Your task to perform on an android device: turn on the 12-hour format for clock Image 0: 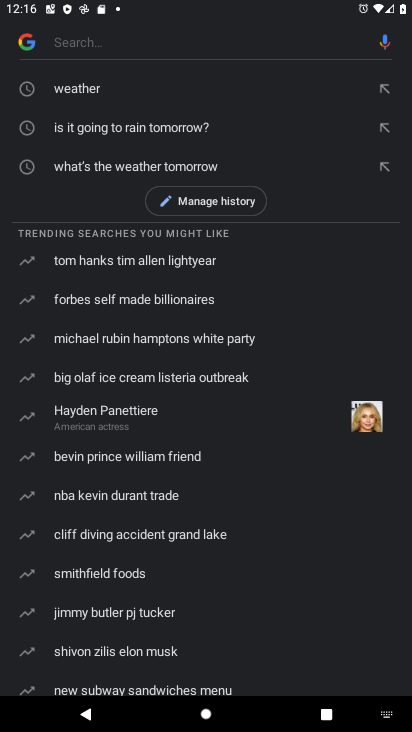
Step 0: press home button
Your task to perform on an android device: turn on the 12-hour format for clock Image 1: 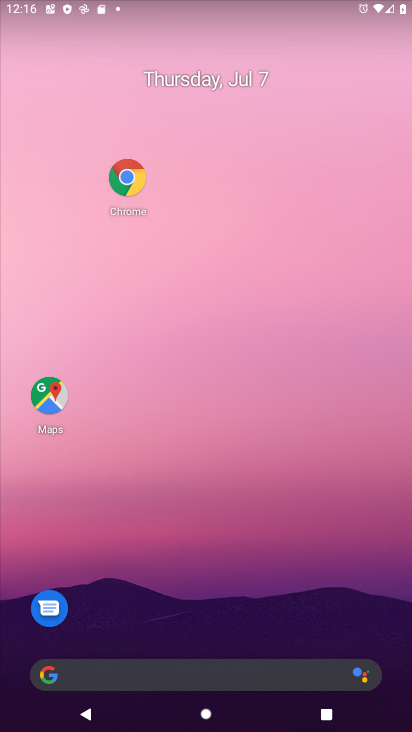
Step 1: drag from (206, 662) to (145, 221)
Your task to perform on an android device: turn on the 12-hour format for clock Image 2: 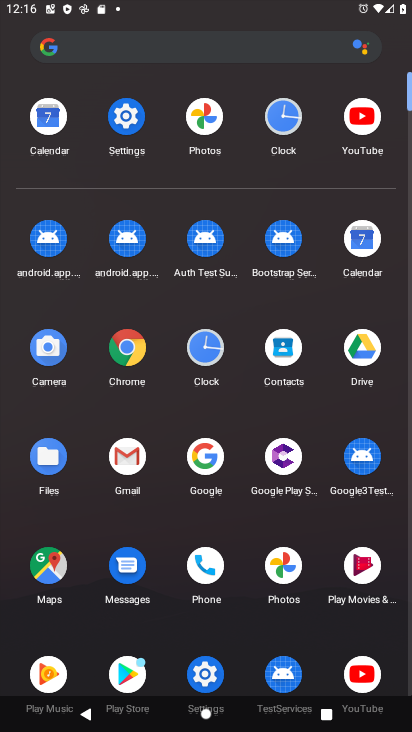
Step 2: click (208, 364)
Your task to perform on an android device: turn on the 12-hour format for clock Image 3: 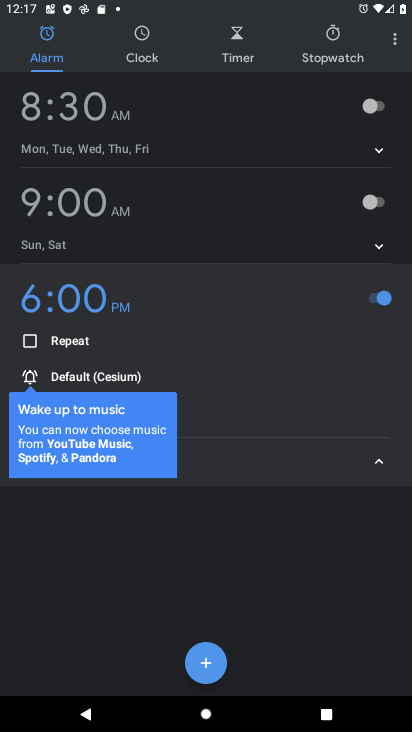
Step 3: click (394, 43)
Your task to perform on an android device: turn on the 12-hour format for clock Image 4: 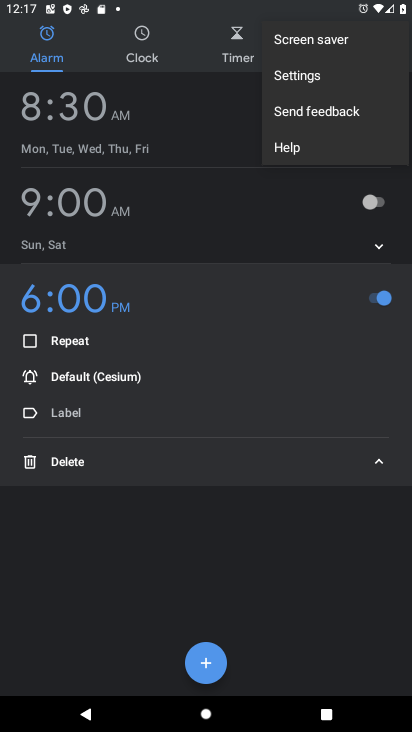
Step 4: click (295, 72)
Your task to perform on an android device: turn on the 12-hour format for clock Image 5: 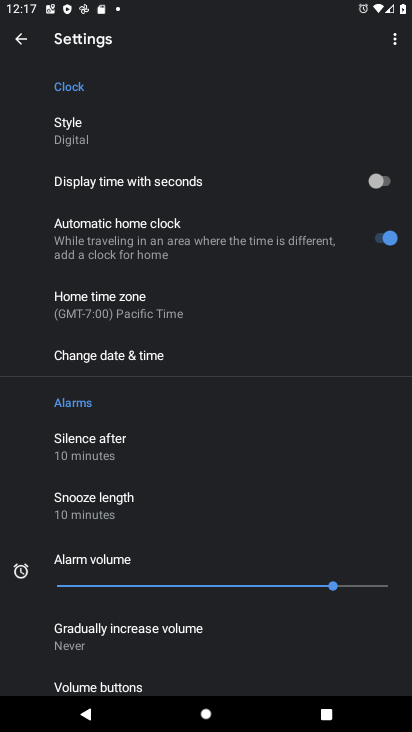
Step 5: drag from (129, 683) to (124, 217)
Your task to perform on an android device: turn on the 12-hour format for clock Image 6: 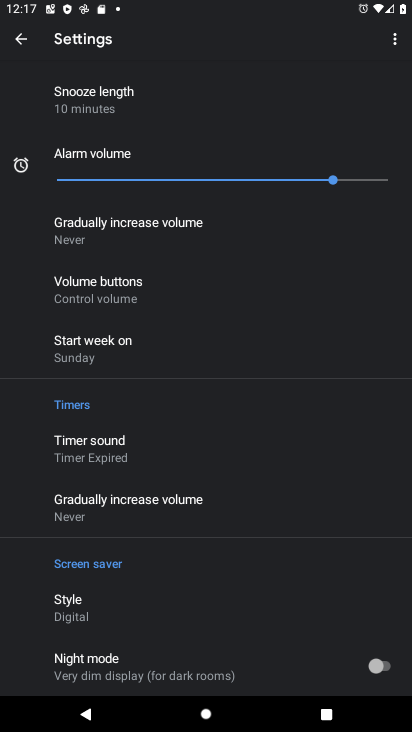
Step 6: drag from (118, 668) to (145, 344)
Your task to perform on an android device: turn on the 12-hour format for clock Image 7: 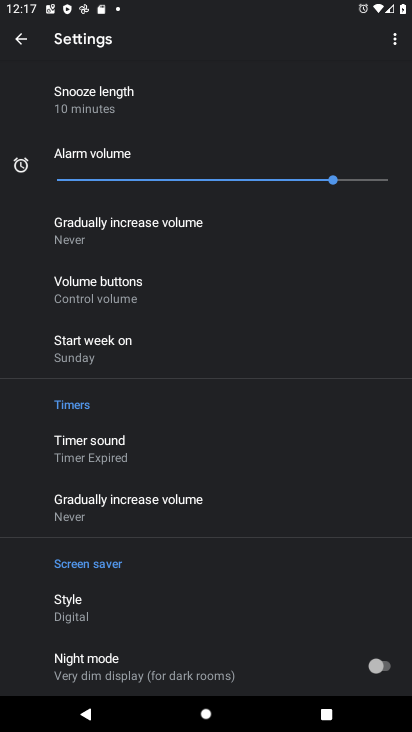
Step 7: drag from (117, 659) to (169, 369)
Your task to perform on an android device: turn on the 12-hour format for clock Image 8: 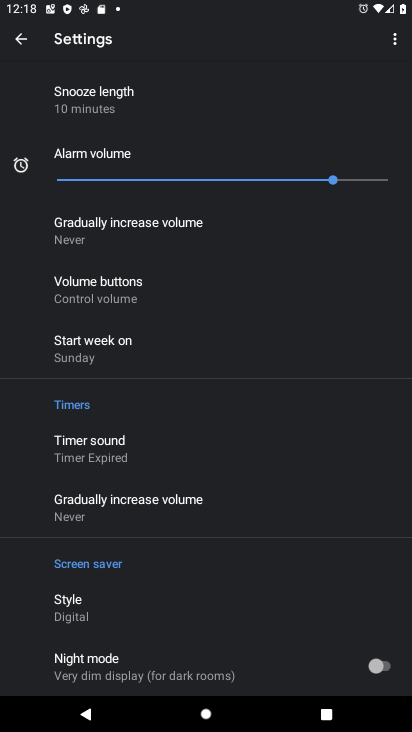
Step 8: drag from (130, 66) to (160, 429)
Your task to perform on an android device: turn on the 12-hour format for clock Image 9: 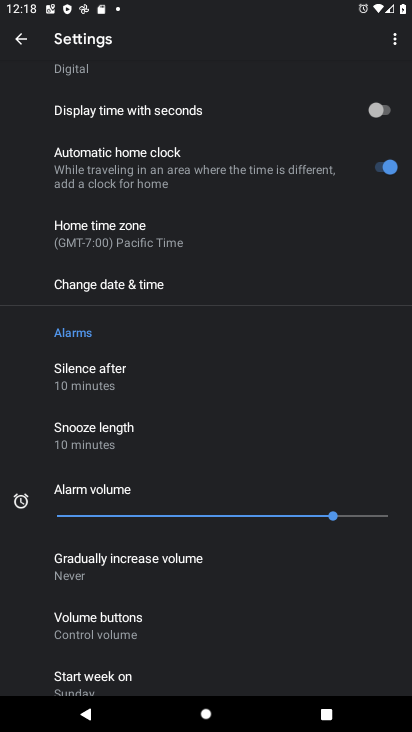
Step 9: drag from (123, 91) to (140, 496)
Your task to perform on an android device: turn on the 12-hour format for clock Image 10: 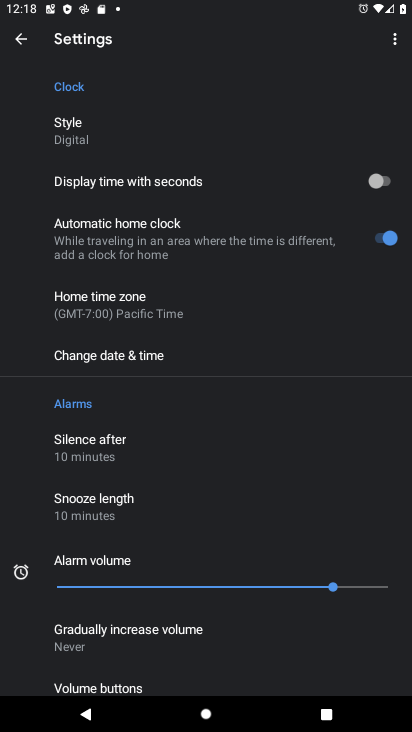
Step 10: click (158, 349)
Your task to perform on an android device: turn on the 12-hour format for clock Image 11: 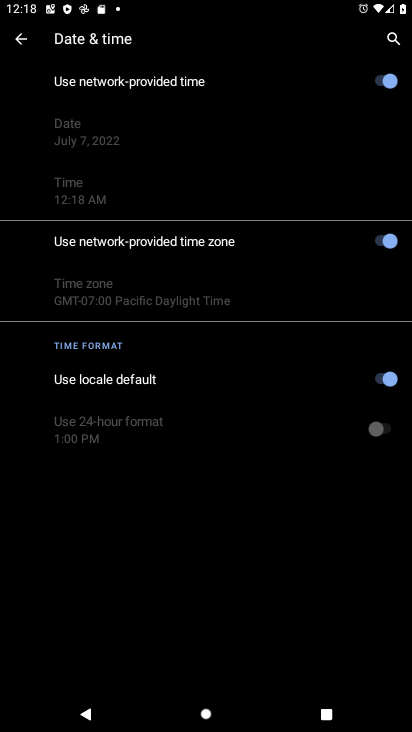
Step 11: task complete